Your task to perform on an android device: turn on wifi Image 0: 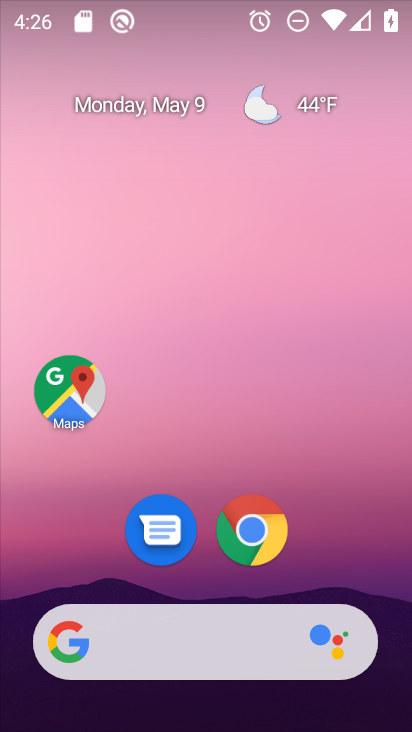
Step 0: drag from (209, 577) to (202, 141)
Your task to perform on an android device: turn on wifi Image 1: 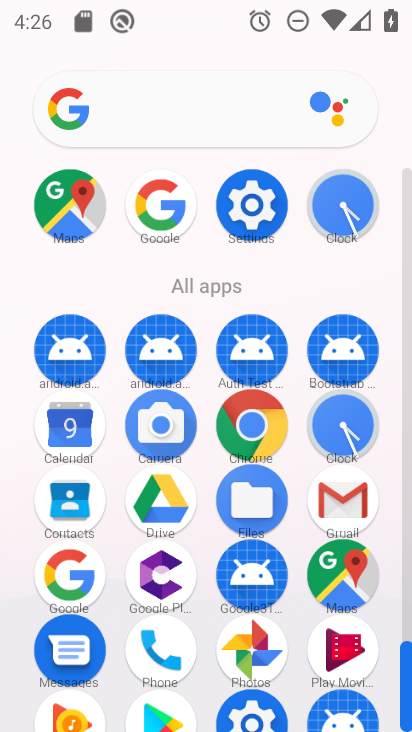
Step 1: click (252, 202)
Your task to perform on an android device: turn on wifi Image 2: 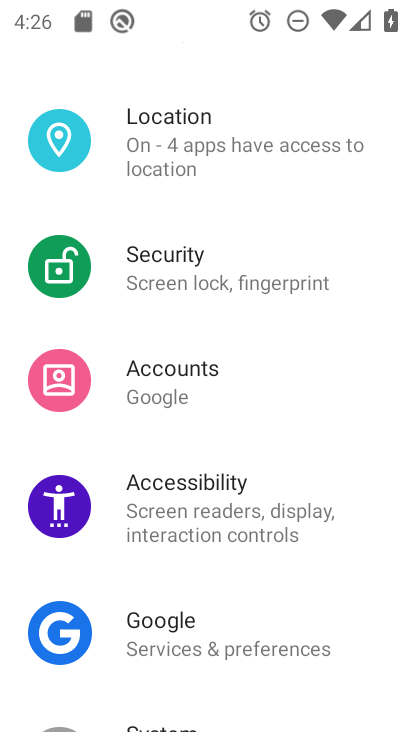
Step 2: drag from (201, 158) to (186, 632)
Your task to perform on an android device: turn on wifi Image 3: 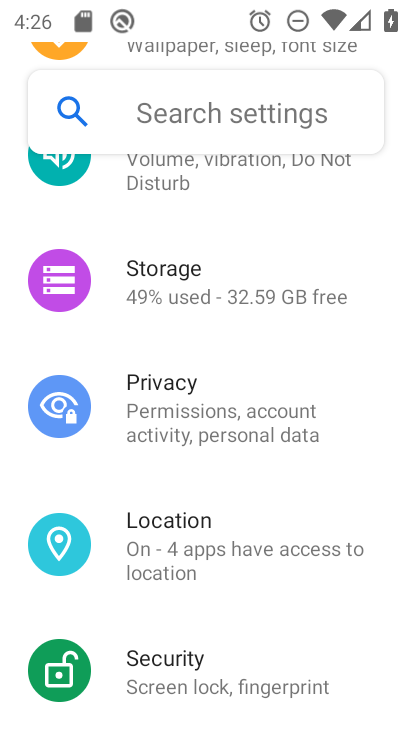
Step 3: drag from (185, 211) to (183, 720)
Your task to perform on an android device: turn on wifi Image 4: 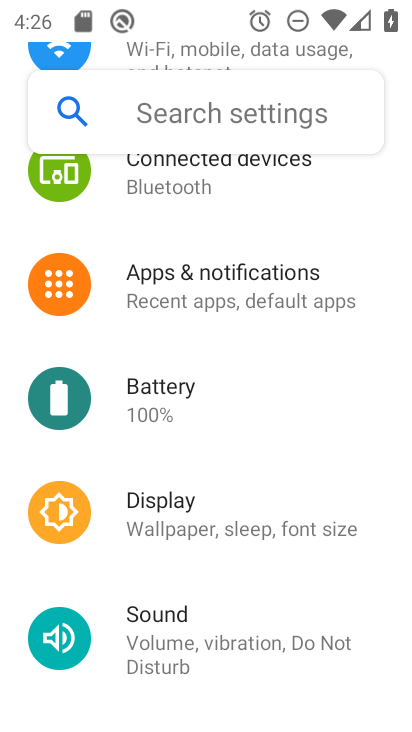
Step 4: drag from (186, 218) to (185, 729)
Your task to perform on an android device: turn on wifi Image 5: 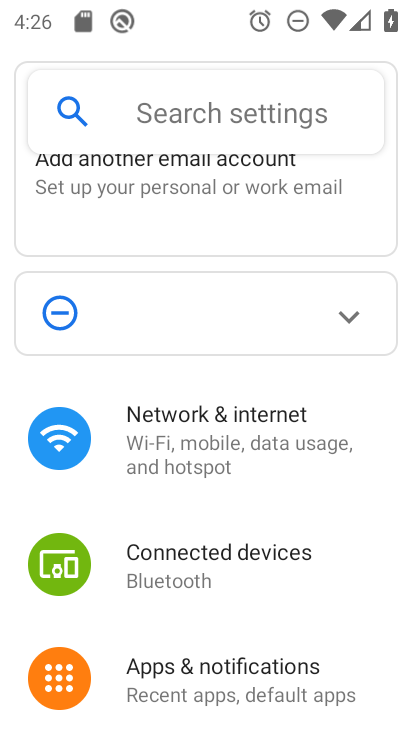
Step 5: click (180, 434)
Your task to perform on an android device: turn on wifi Image 6: 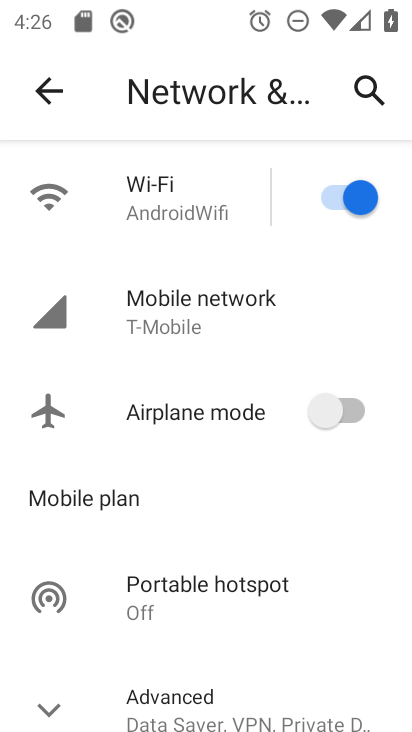
Step 6: task complete